Your task to perform on an android device: add a label to a message in the gmail app Image 0: 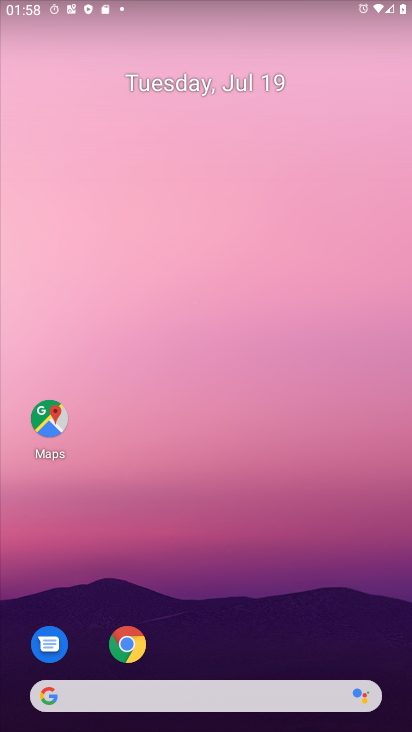
Step 0: drag from (235, 691) to (246, 232)
Your task to perform on an android device: add a label to a message in the gmail app Image 1: 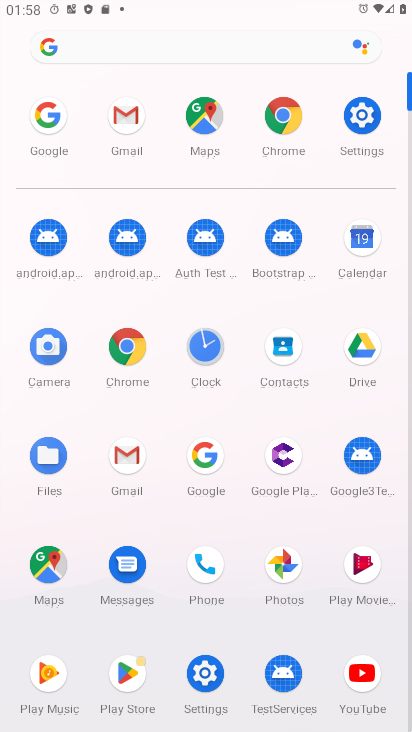
Step 1: click (122, 464)
Your task to perform on an android device: add a label to a message in the gmail app Image 2: 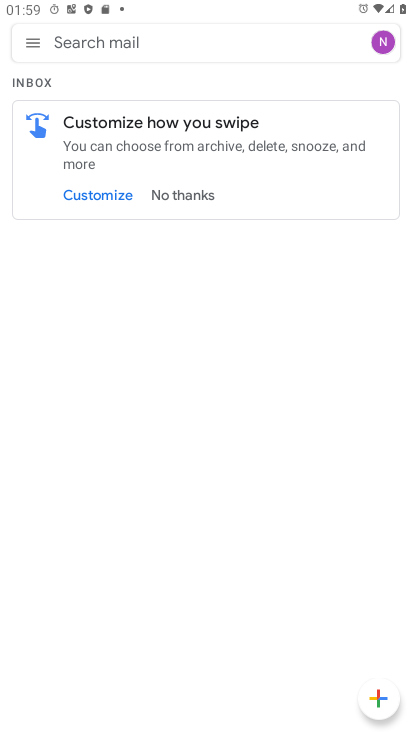
Step 2: task complete